Your task to perform on an android device: open chrome privacy settings Image 0: 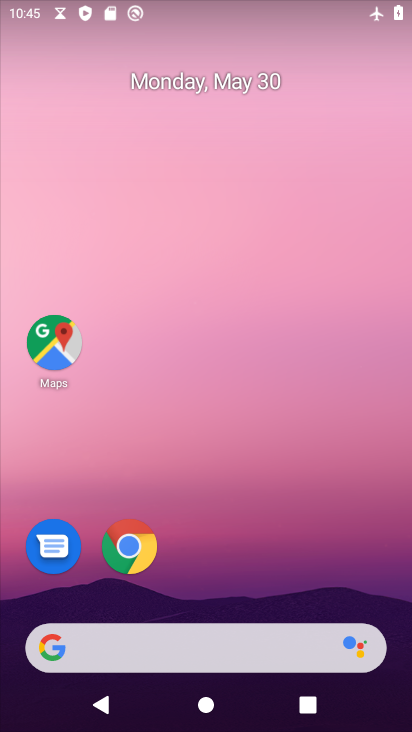
Step 0: drag from (236, 449) to (269, 8)
Your task to perform on an android device: open chrome privacy settings Image 1: 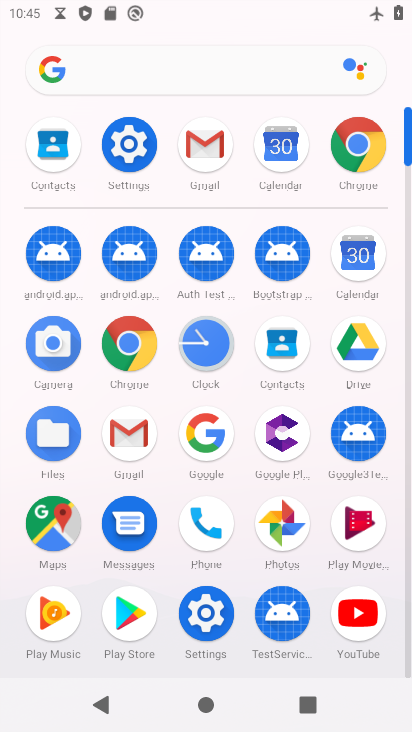
Step 1: drag from (215, 601) to (257, 4)
Your task to perform on an android device: open chrome privacy settings Image 2: 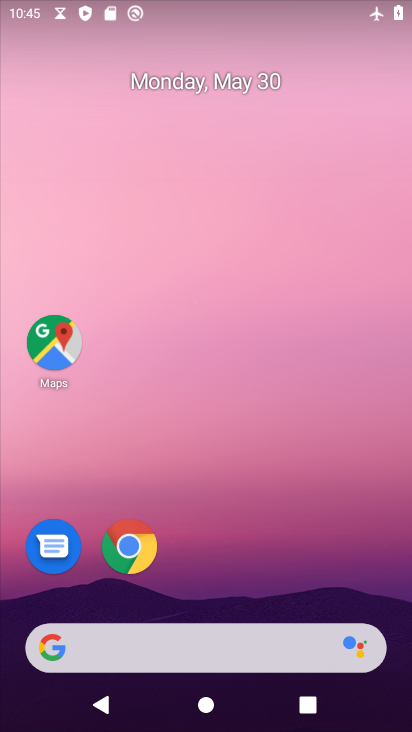
Step 2: click (132, 133)
Your task to perform on an android device: open chrome privacy settings Image 3: 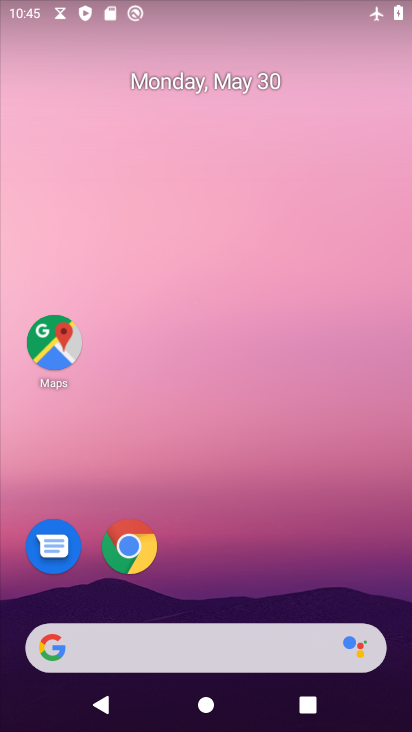
Step 3: drag from (165, 578) to (205, 94)
Your task to perform on an android device: open chrome privacy settings Image 4: 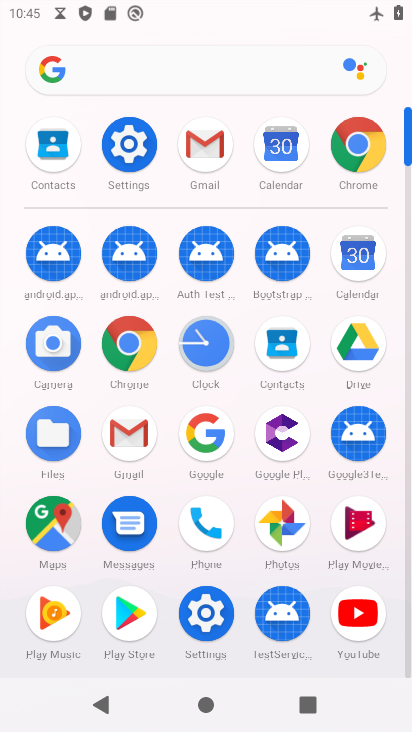
Step 4: click (128, 140)
Your task to perform on an android device: open chrome privacy settings Image 5: 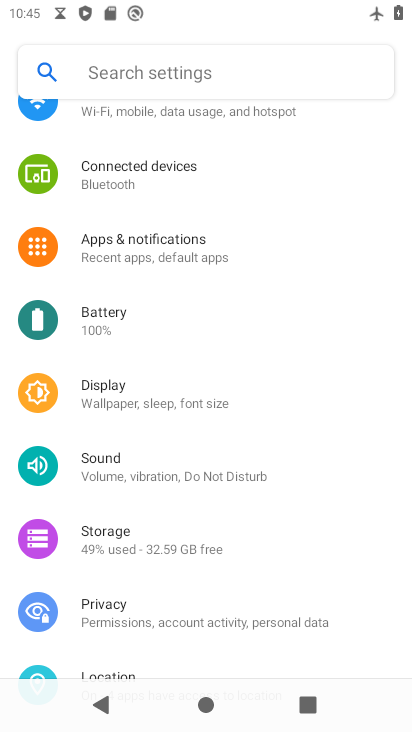
Step 5: click (131, 607)
Your task to perform on an android device: open chrome privacy settings Image 6: 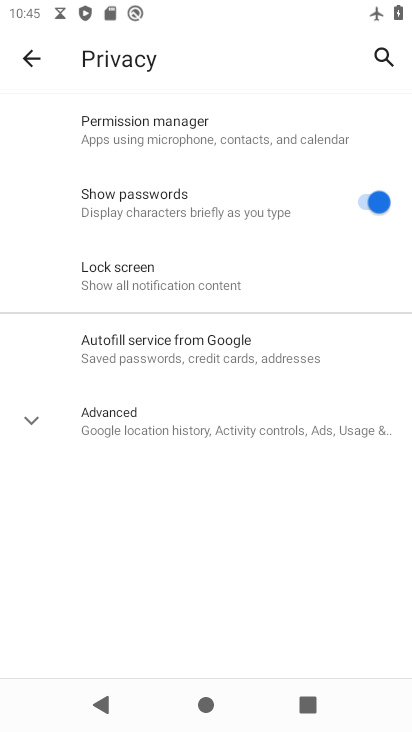
Step 6: click (37, 417)
Your task to perform on an android device: open chrome privacy settings Image 7: 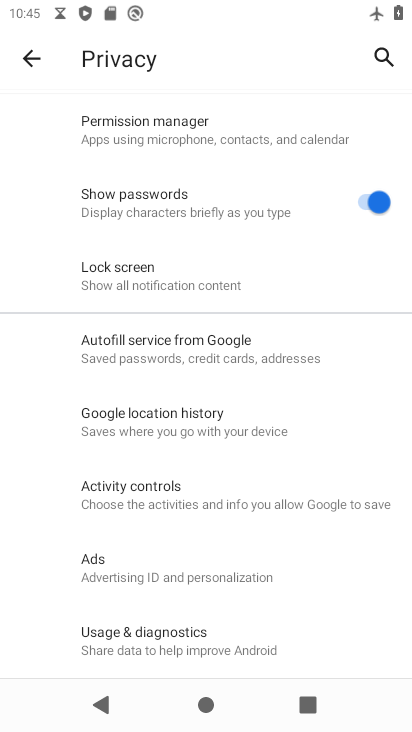
Step 7: task complete